Your task to perform on an android device: Go to privacy settings Image 0: 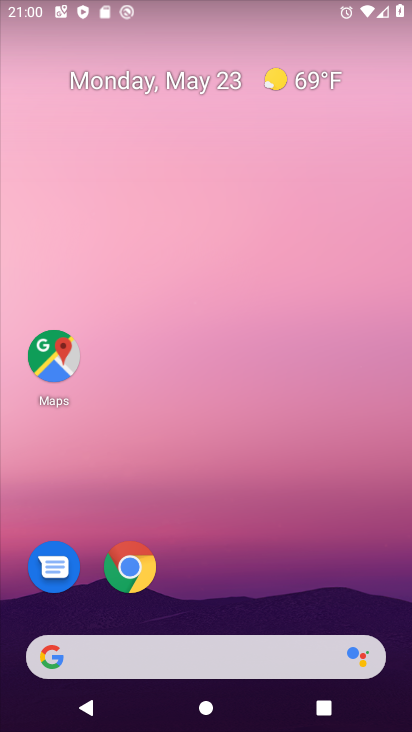
Step 0: drag from (230, 534) to (257, 15)
Your task to perform on an android device: Go to privacy settings Image 1: 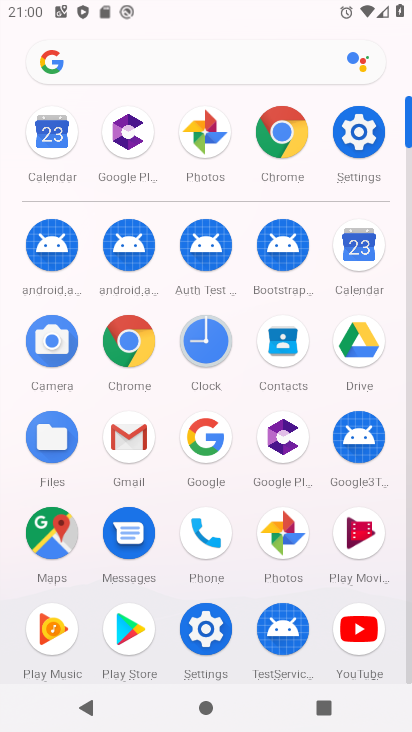
Step 1: click (202, 627)
Your task to perform on an android device: Go to privacy settings Image 2: 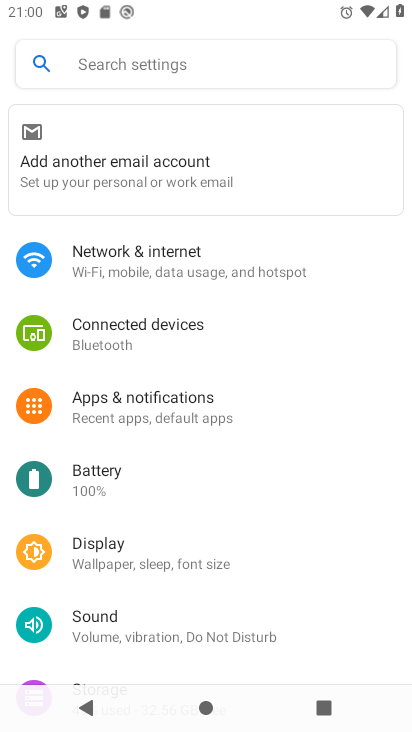
Step 2: drag from (164, 473) to (232, 171)
Your task to perform on an android device: Go to privacy settings Image 3: 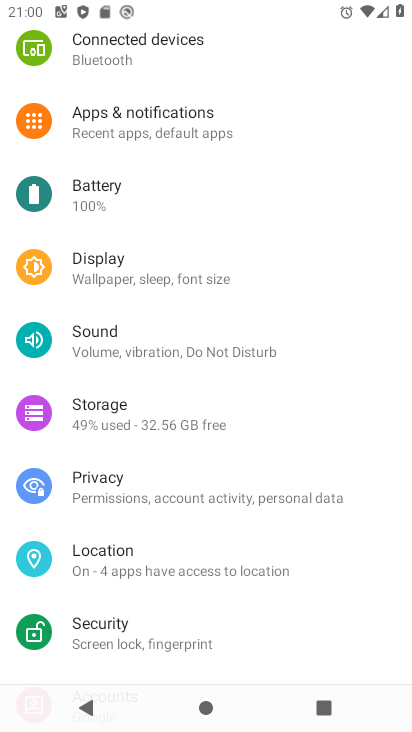
Step 3: click (165, 500)
Your task to perform on an android device: Go to privacy settings Image 4: 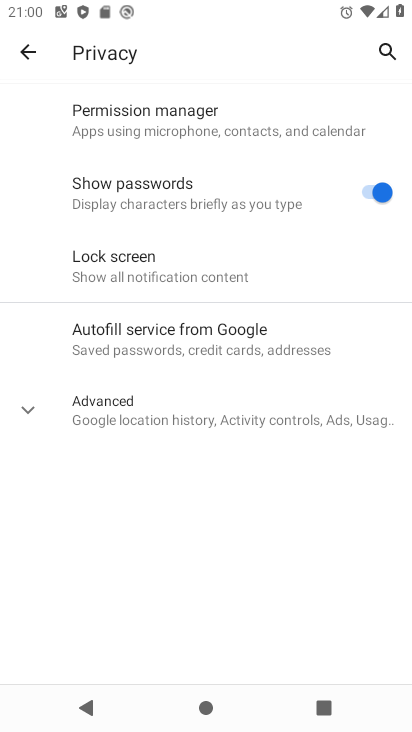
Step 4: task complete